Your task to perform on an android device: change the clock display to show seconds Image 0: 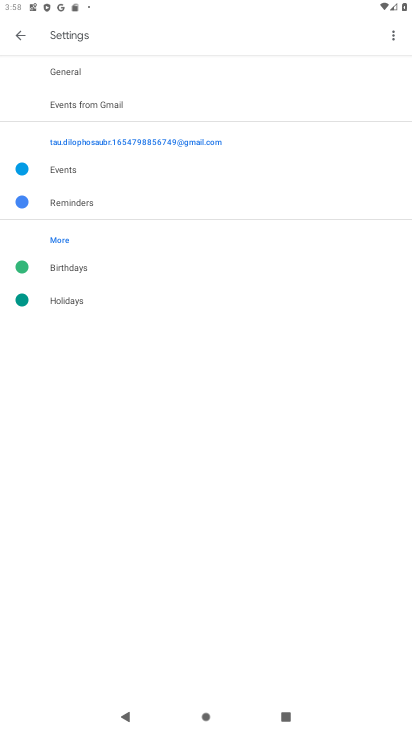
Step 0: press home button
Your task to perform on an android device: change the clock display to show seconds Image 1: 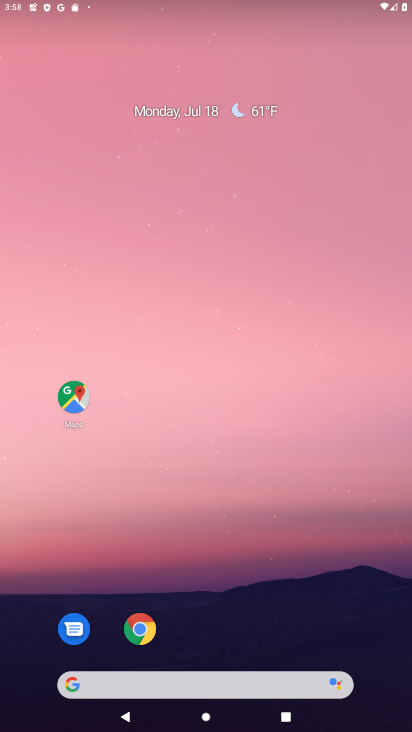
Step 1: drag from (131, 669) to (190, 259)
Your task to perform on an android device: change the clock display to show seconds Image 2: 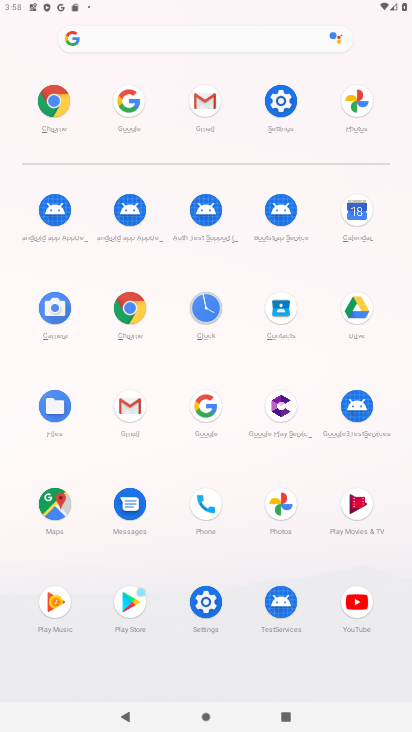
Step 2: click (206, 301)
Your task to perform on an android device: change the clock display to show seconds Image 3: 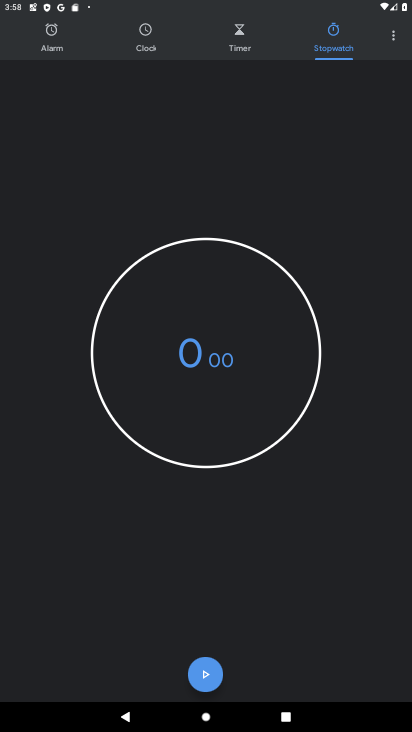
Step 3: click (391, 32)
Your task to perform on an android device: change the clock display to show seconds Image 4: 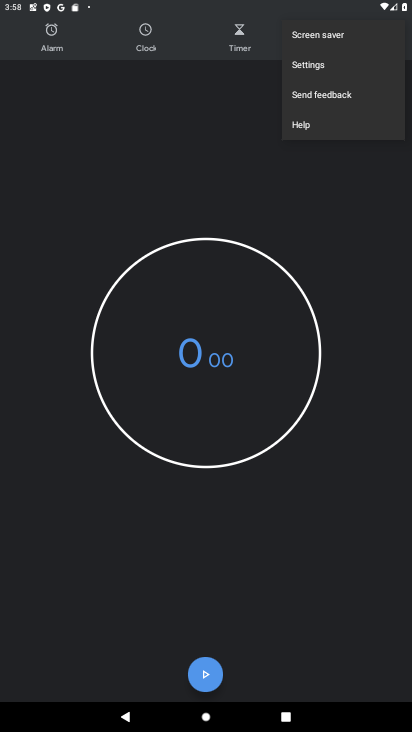
Step 4: click (299, 56)
Your task to perform on an android device: change the clock display to show seconds Image 5: 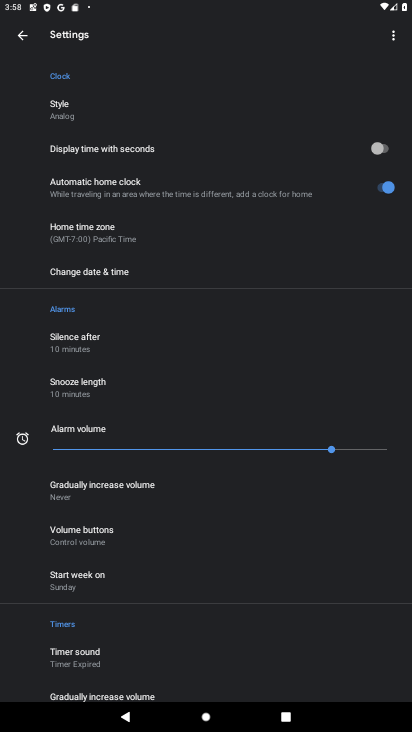
Step 5: click (381, 151)
Your task to perform on an android device: change the clock display to show seconds Image 6: 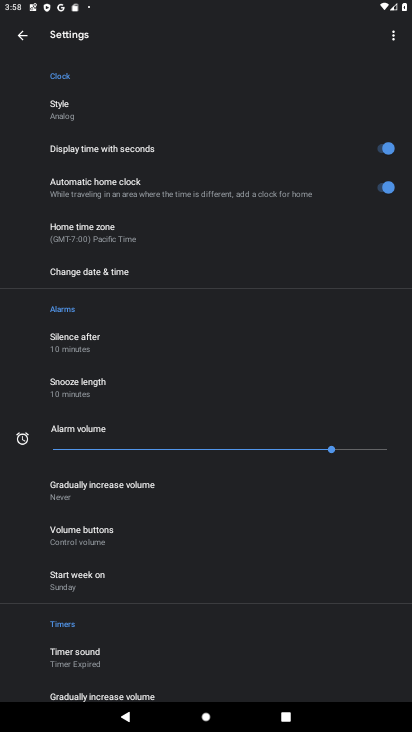
Step 6: task complete